Your task to perform on an android device: turn off location Image 0: 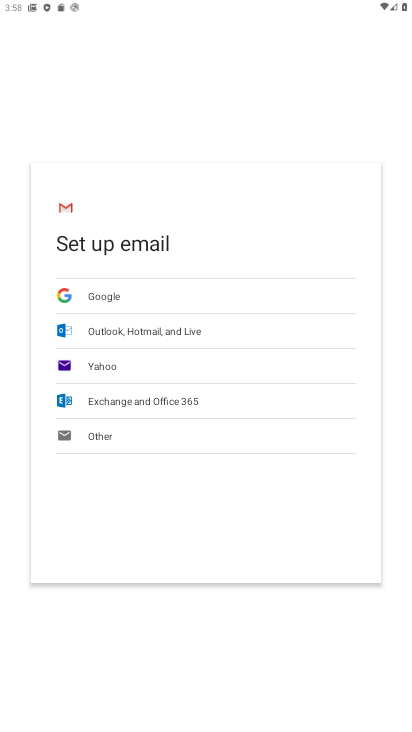
Step 0: drag from (336, 2) to (296, 639)
Your task to perform on an android device: turn off location Image 1: 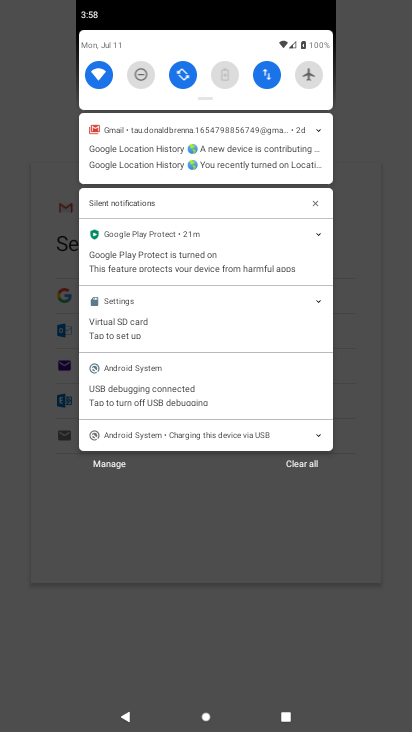
Step 1: drag from (207, 70) to (203, 603)
Your task to perform on an android device: turn off location Image 2: 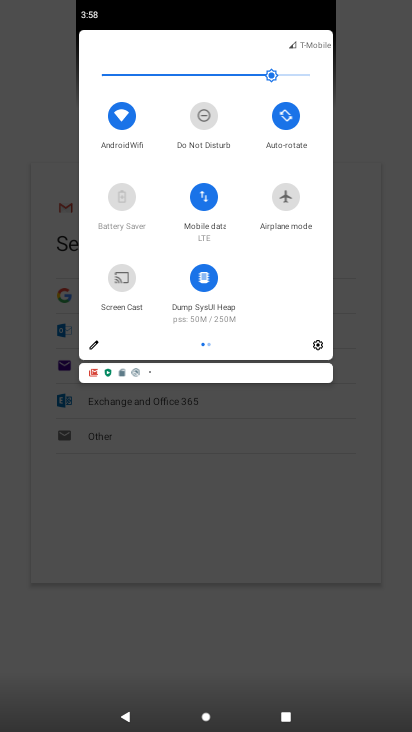
Step 2: click (313, 354)
Your task to perform on an android device: turn off location Image 3: 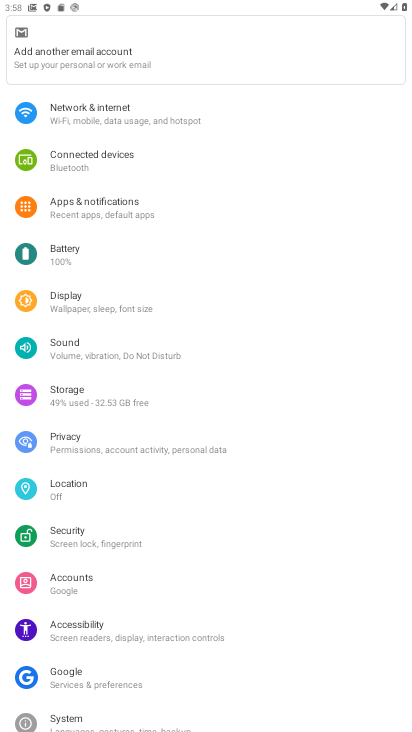
Step 3: click (85, 490)
Your task to perform on an android device: turn off location Image 4: 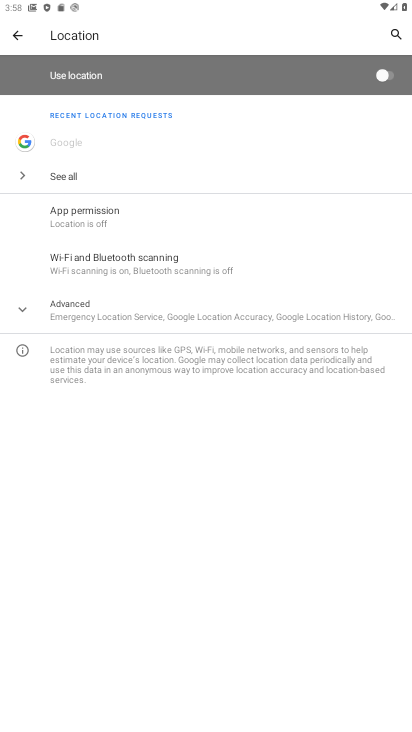
Step 4: task complete